Your task to perform on an android device: toggle wifi Image 0: 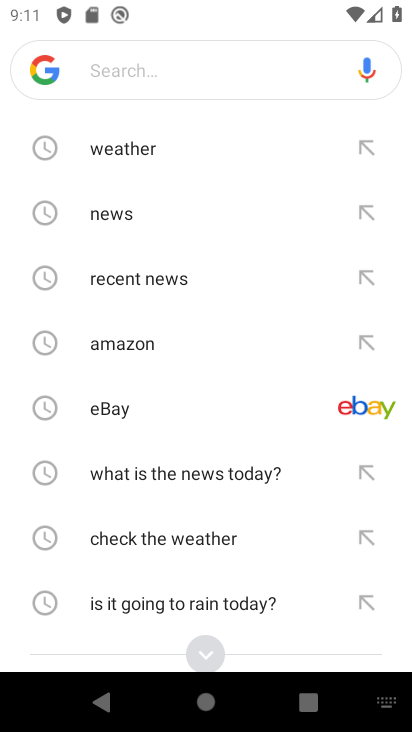
Step 0: press back button
Your task to perform on an android device: toggle wifi Image 1: 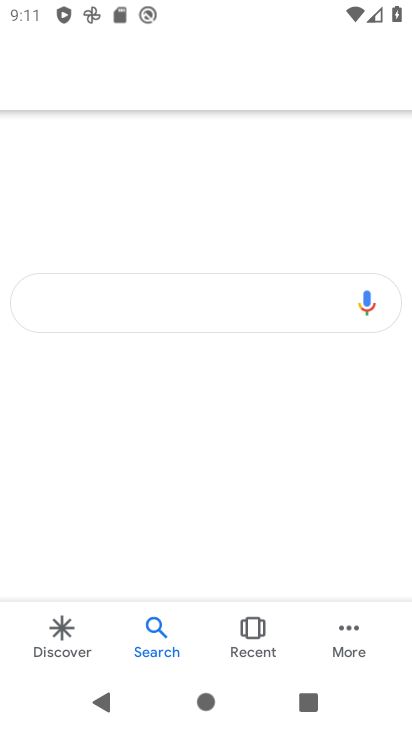
Step 1: press back button
Your task to perform on an android device: toggle wifi Image 2: 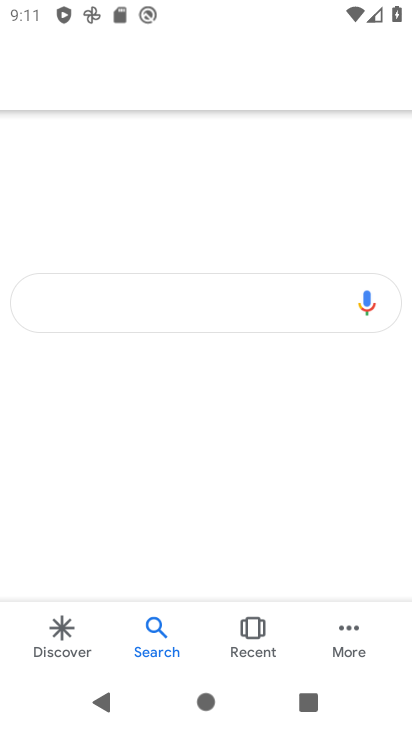
Step 2: press back button
Your task to perform on an android device: toggle wifi Image 3: 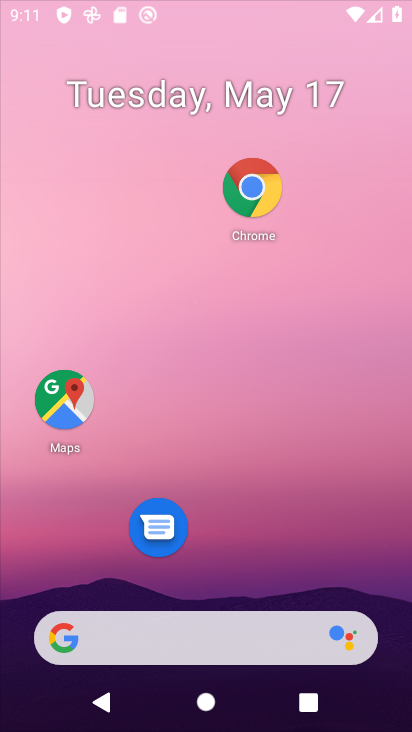
Step 3: press back button
Your task to perform on an android device: toggle wifi Image 4: 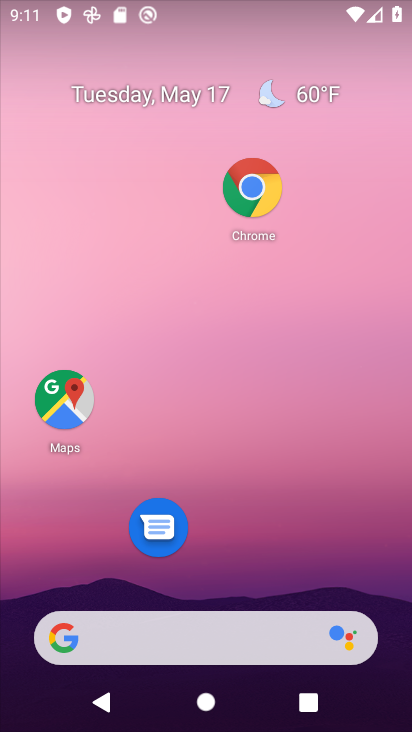
Step 4: drag from (317, 547) to (310, 19)
Your task to perform on an android device: toggle wifi Image 5: 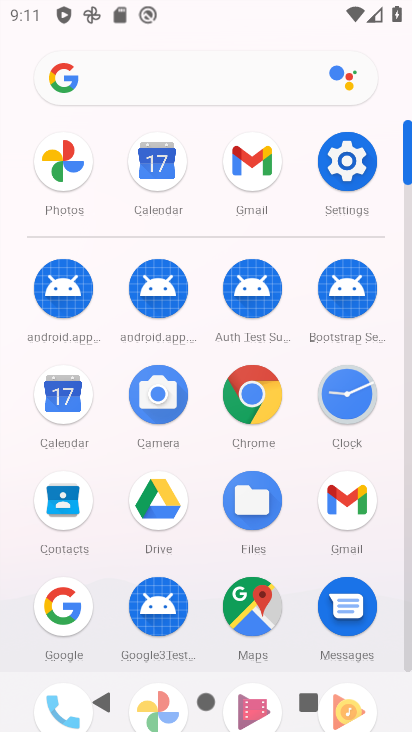
Step 5: click (346, 156)
Your task to perform on an android device: toggle wifi Image 6: 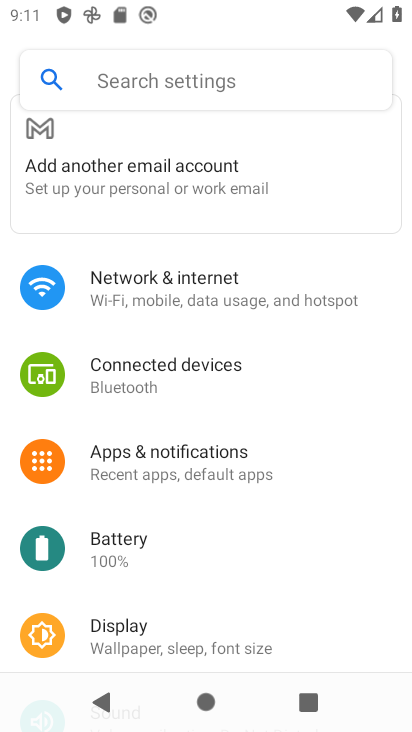
Step 6: click (241, 291)
Your task to perform on an android device: toggle wifi Image 7: 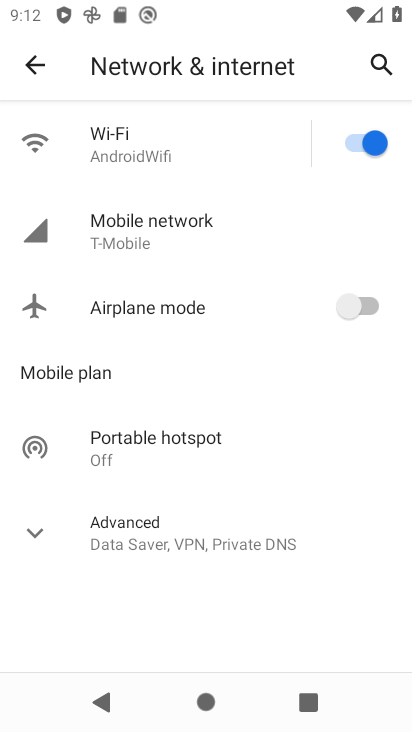
Step 7: click (197, 160)
Your task to perform on an android device: toggle wifi Image 8: 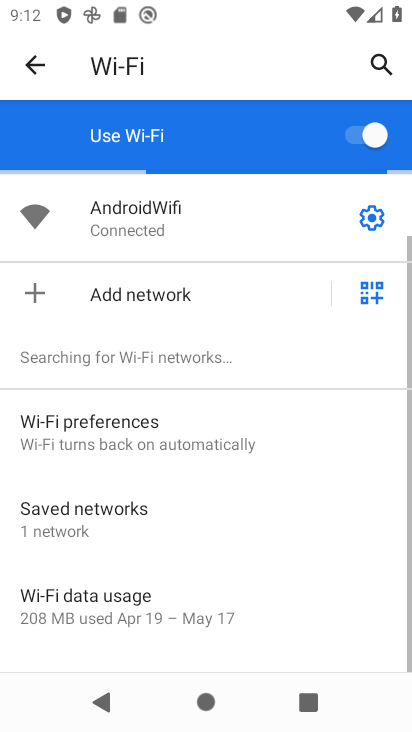
Step 8: task complete